Your task to perform on an android device: turn off sleep mode Image 0: 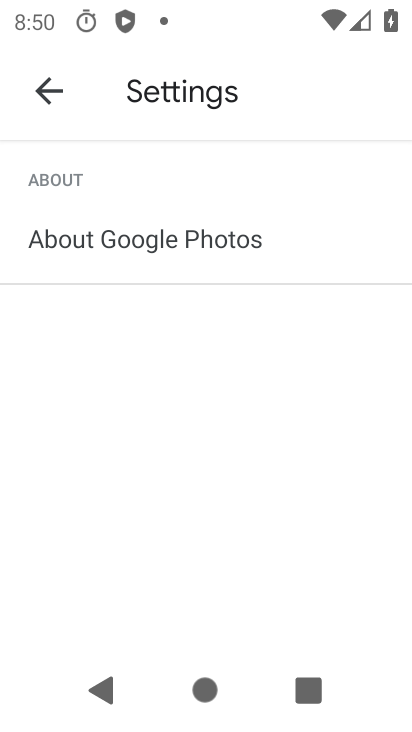
Step 0: press home button
Your task to perform on an android device: turn off sleep mode Image 1: 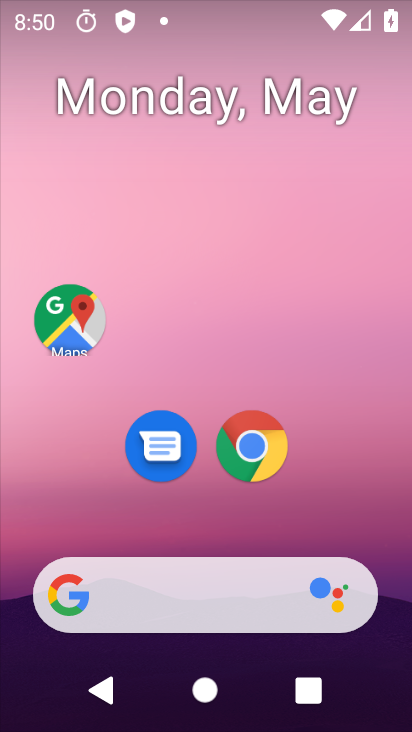
Step 1: drag from (365, 543) to (343, 25)
Your task to perform on an android device: turn off sleep mode Image 2: 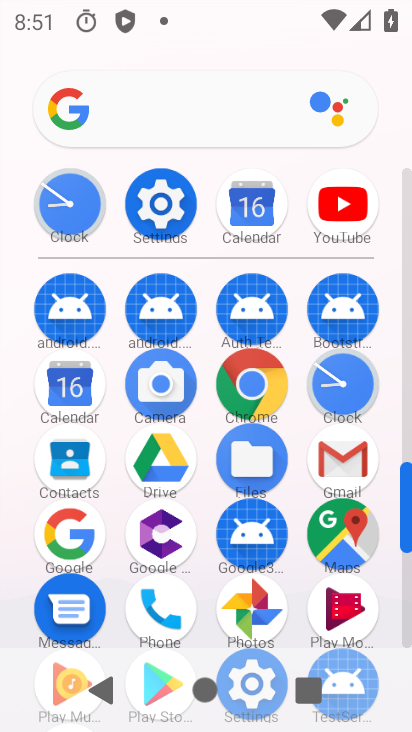
Step 2: click (164, 206)
Your task to perform on an android device: turn off sleep mode Image 3: 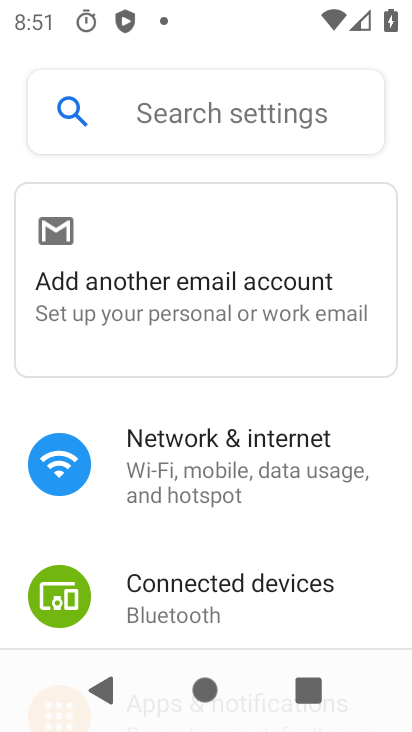
Step 3: drag from (304, 571) to (250, 177)
Your task to perform on an android device: turn off sleep mode Image 4: 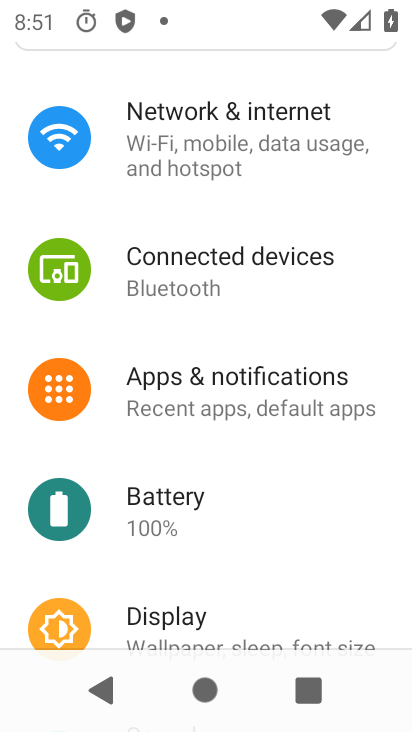
Step 4: drag from (248, 464) to (223, 147)
Your task to perform on an android device: turn off sleep mode Image 5: 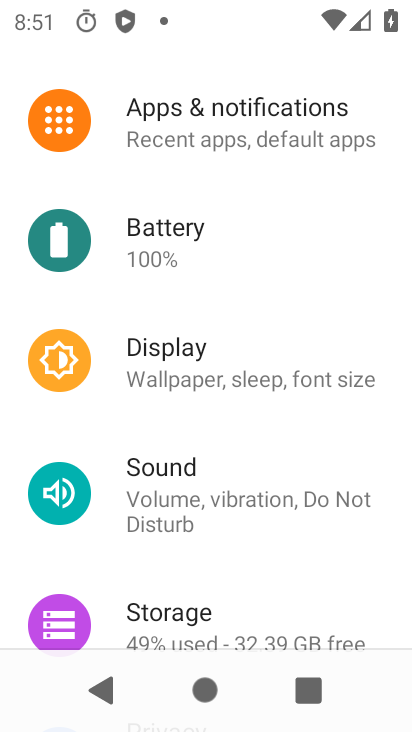
Step 5: click (174, 375)
Your task to perform on an android device: turn off sleep mode Image 6: 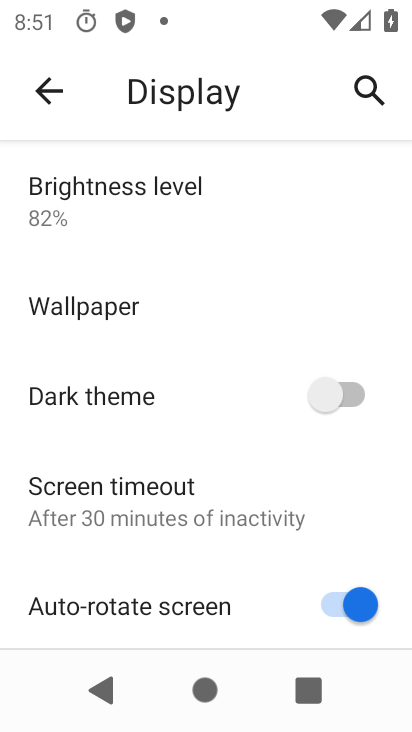
Step 6: drag from (166, 534) to (136, 167)
Your task to perform on an android device: turn off sleep mode Image 7: 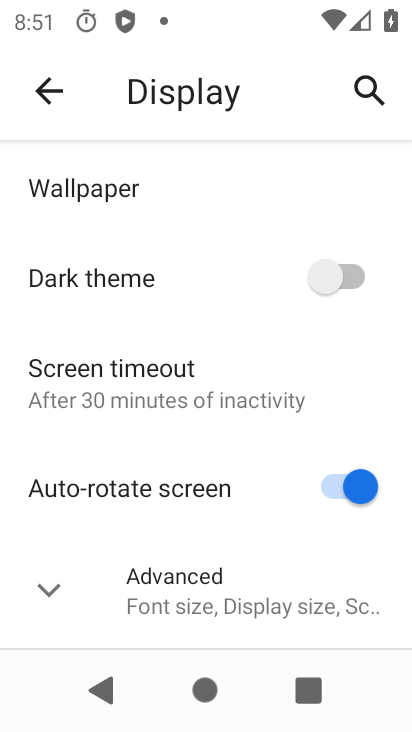
Step 7: click (41, 596)
Your task to perform on an android device: turn off sleep mode Image 8: 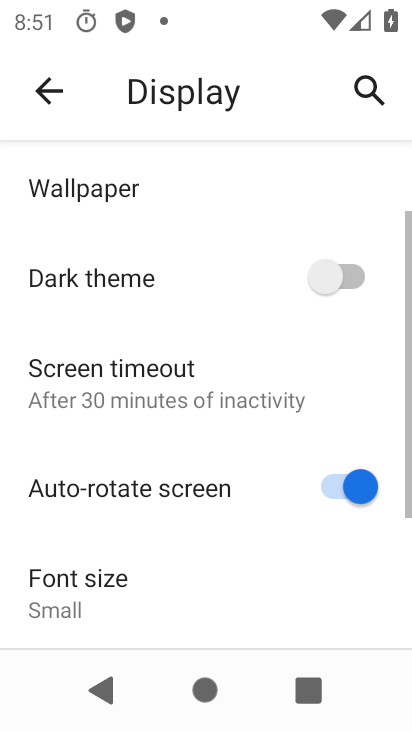
Step 8: task complete